Your task to perform on an android device: find snoozed emails in the gmail app Image 0: 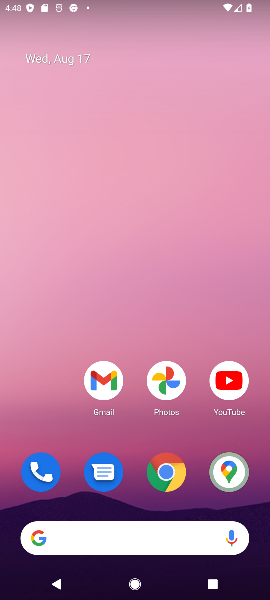
Step 0: click (107, 384)
Your task to perform on an android device: find snoozed emails in the gmail app Image 1: 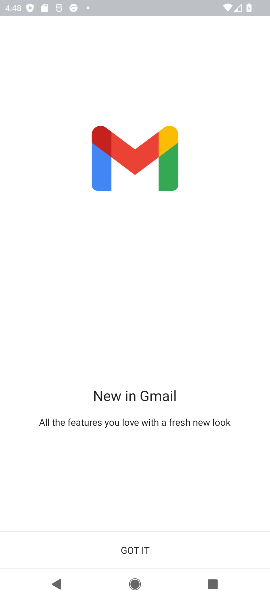
Step 1: click (161, 538)
Your task to perform on an android device: find snoozed emails in the gmail app Image 2: 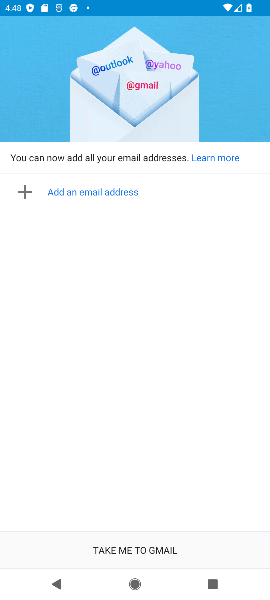
Step 2: click (148, 540)
Your task to perform on an android device: find snoozed emails in the gmail app Image 3: 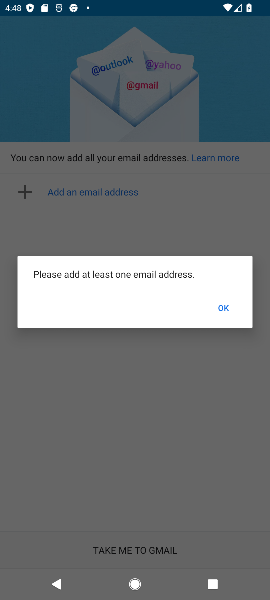
Step 3: click (221, 308)
Your task to perform on an android device: find snoozed emails in the gmail app Image 4: 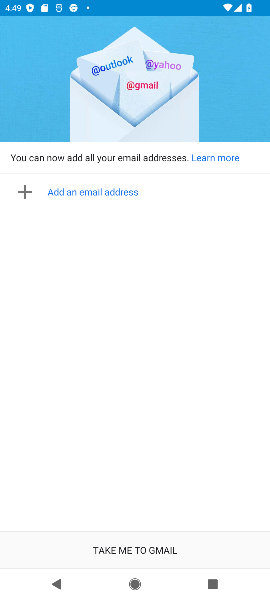
Step 4: click (143, 552)
Your task to perform on an android device: find snoozed emails in the gmail app Image 5: 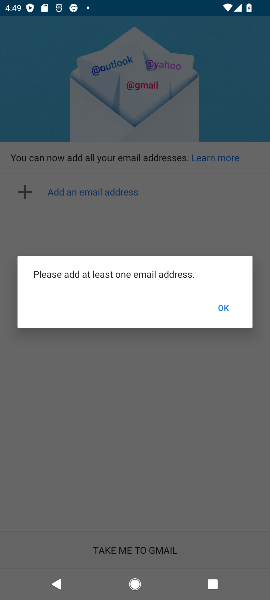
Step 5: task complete